Your task to perform on an android device: install app "ZOOM Cloud Meetings" Image 0: 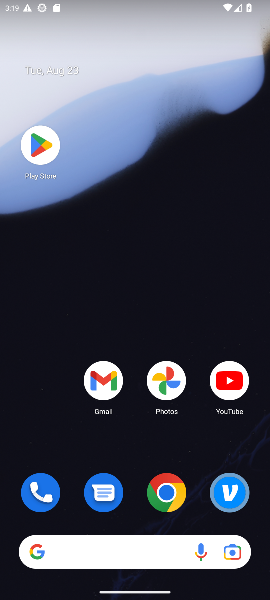
Step 0: click (44, 151)
Your task to perform on an android device: install app "ZOOM Cloud Meetings" Image 1: 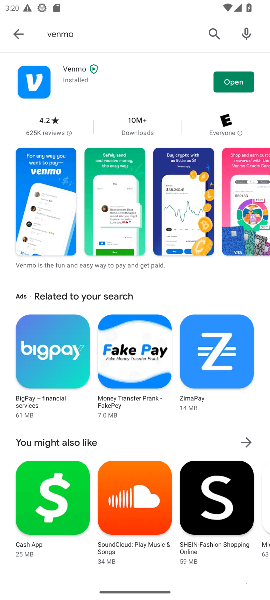
Step 1: click (214, 32)
Your task to perform on an android device: install app "ZOOM Cloud Meetings" Image 2: 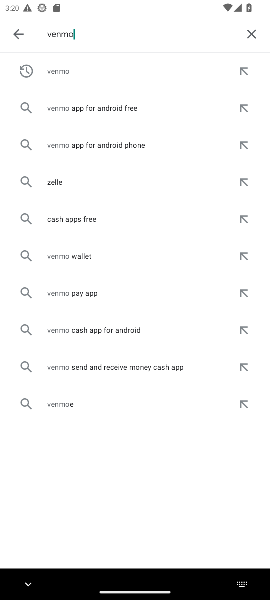
Step 2: click (258, 33)
Your task to perform on an android device: install app "ZOOM Cloud Meetings" Image 3: 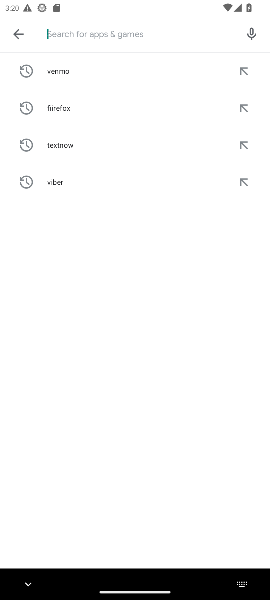
Step 3: type "zomm "
Your task to perform on an android device: install app "ZOOM Cloud Meetings" Image 4: 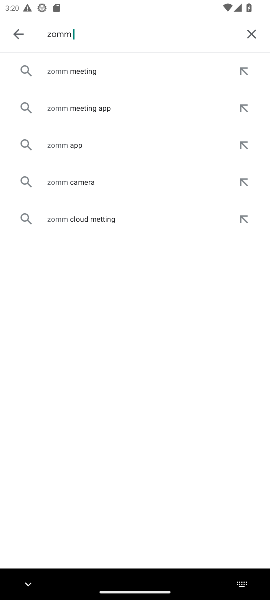
Step 4: click (93, 73)
Your task to perform on an android device: install app "ZOOM Cloud Meetings" Image 5: 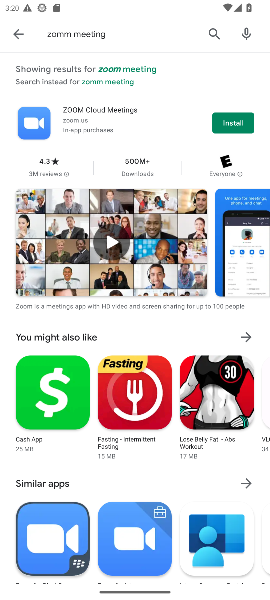
Step 5: click (230, 117)
Your task to perform on an android device: install app "ZOOM Cloud Meetings" Image 6: 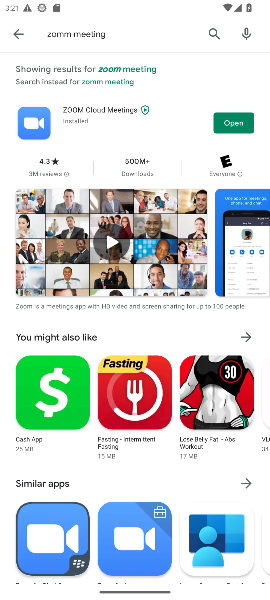
Step 6: task complete